Your task to perform on an android device: choose inbox layout in the gmail app Image 0: 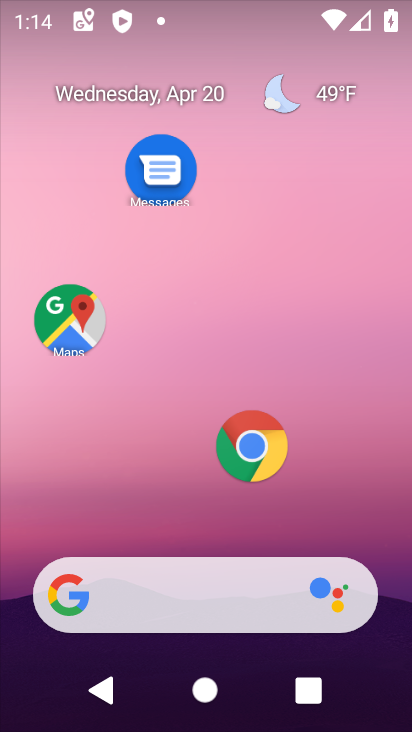
Step 0: drag from (203, 498) to (200, 62)
Your task to perform on an android device: choose inbox layout in the gmail app Image 1: 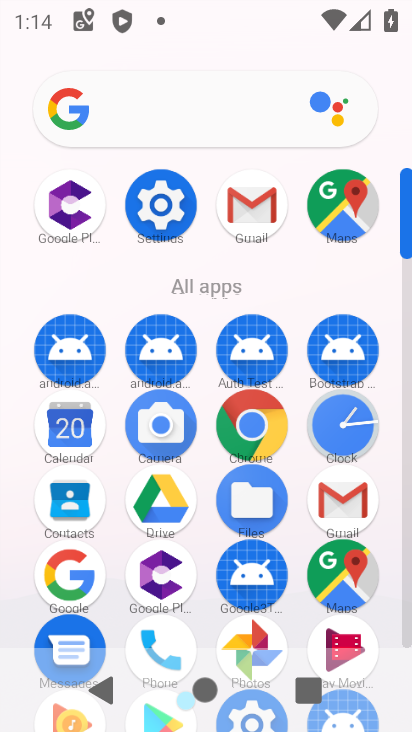
Step 1: click (247, 200)
Your task to perform on an android device: choose inbox layout in the gmail app Image 2: 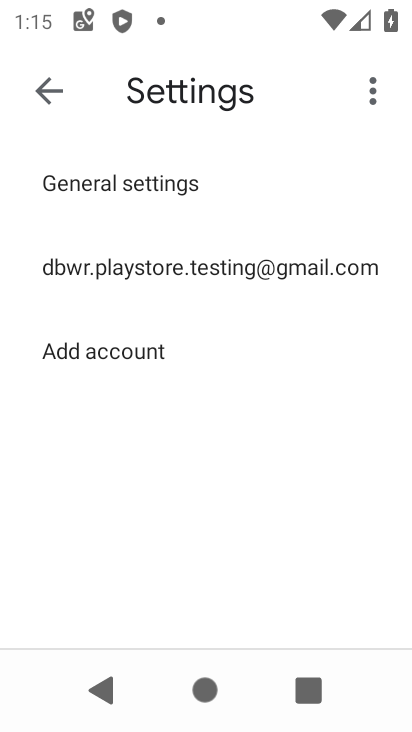
Step 2: click (187, 263)
Your task to perform on an android device: choose inbox layout in the gmail app Image 3: 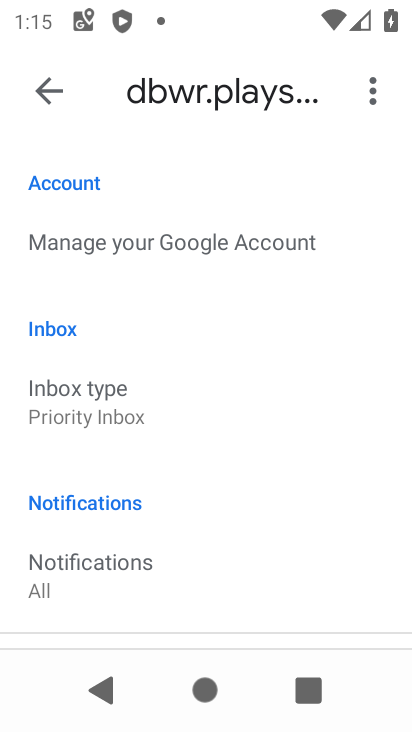
Step 3: click (142, 395)
Your task to perform on an android device: choose inbox layout in the gmail app Image 4: 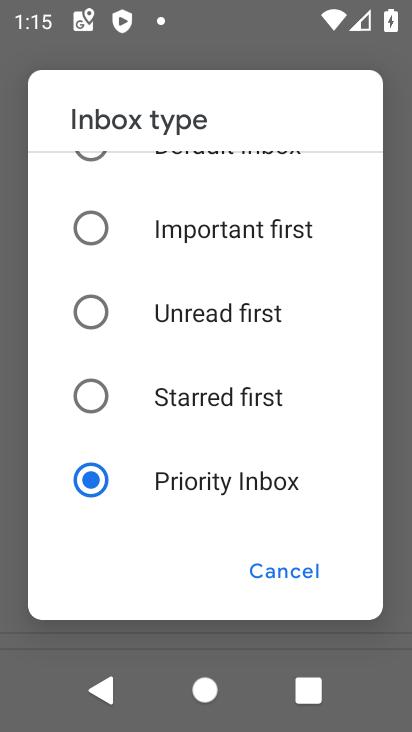
Step 4: drag from (140, 199) to (119, 479)
Your task to perform on an android device: choose inbox layout in the gmail app Image 5: 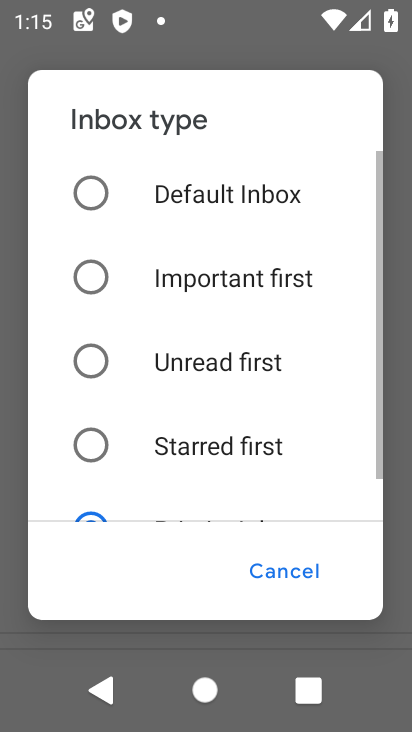
Step 5: click (94, 195)
Your task to perform on an android device: choose inbox layout in the gmail app Image 6: 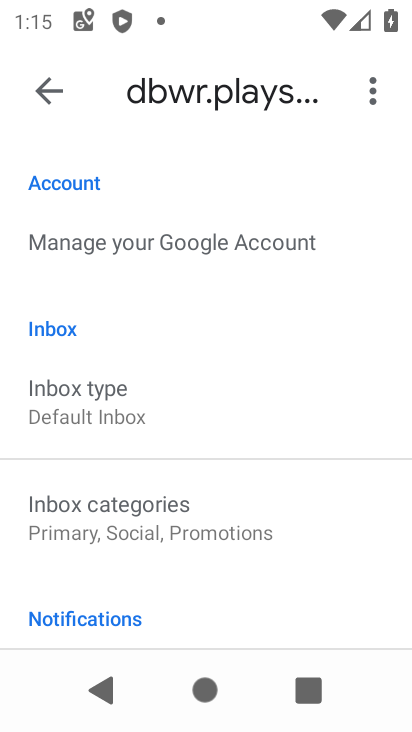
Step 6: task complete